Your task to perform on an android device: Open settings on Google Maps Image 0: 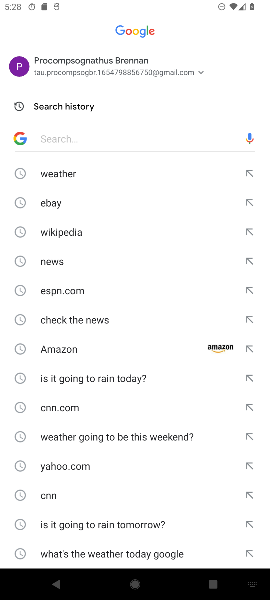
Step 0: press back button
Your task to perform on an android device: Open settings on Google Maps Image 1: 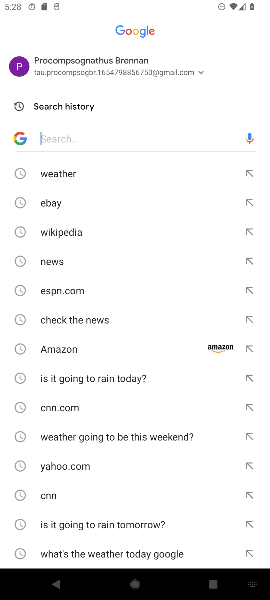
Step 1: press back button
Your task to perform on an android device: Open settings on Google Maps Image 2: 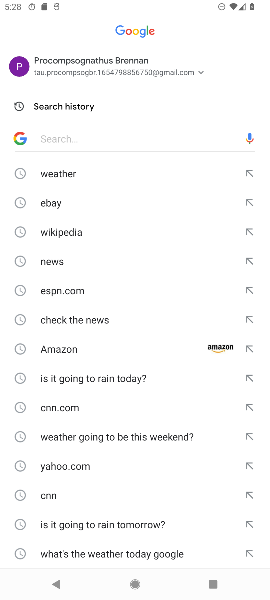
Step 2: press back button
Your task to perform on an android device: Open settings on Google Maps Image 3: 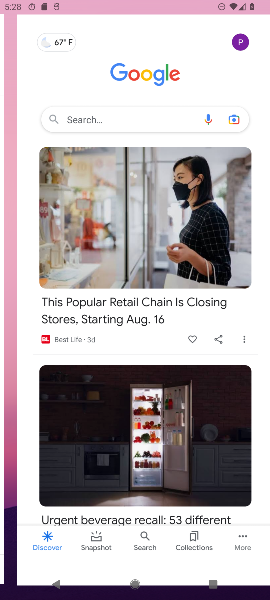
Step 3: press back button
Your task to perform on an android device: Open settings on Google Maps Image 4: 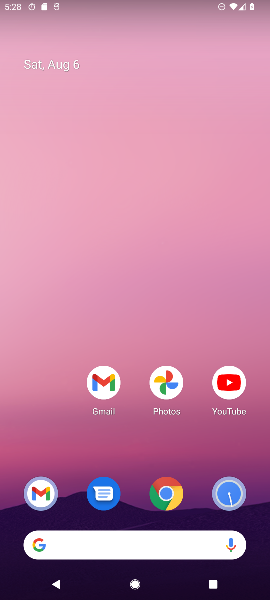
Step 4: drag from (155, 383) to (113, 90)
Your task to perform on an android device: Open settings on Google Maps Image 5: 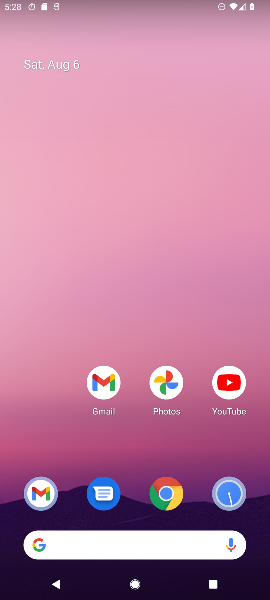
Step 5: drag from (209, 405) to (170, 139)
Your task to perform on an android device: Open settings on Google Maps Image 6: 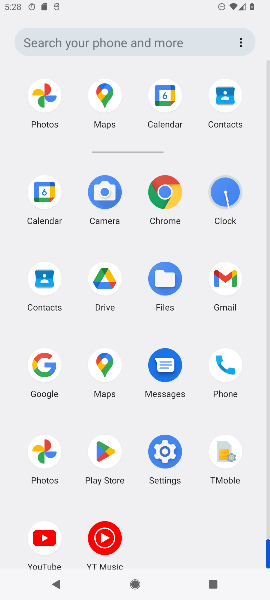
Step 6: drag from (138, 475) to (115, 223)
Your task to perform on an android device: Open settings on Google Maps Image 7: 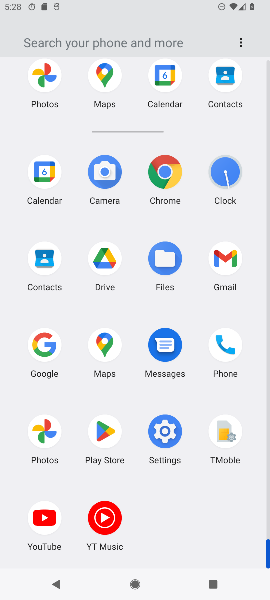
Step 7: click (102, 338)
Your task to perform on an android device: Open settings on Google Maps Image 8: 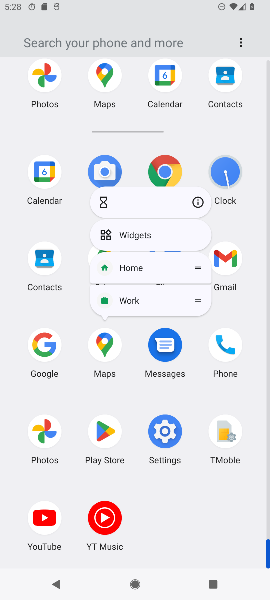
Step 8: click (108, 342)
Your task to perform on an android device: Open settings on Google Maps Image 9: 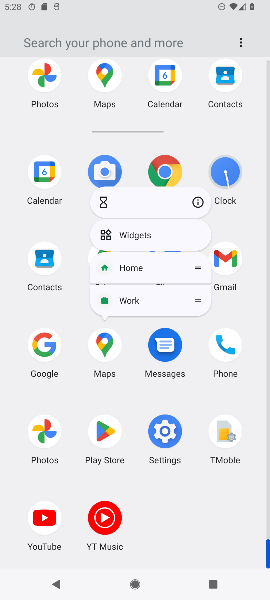
Step 9: click (108, 342)
Your task to perform on an android device: Open settings on Google Maps Image 10: 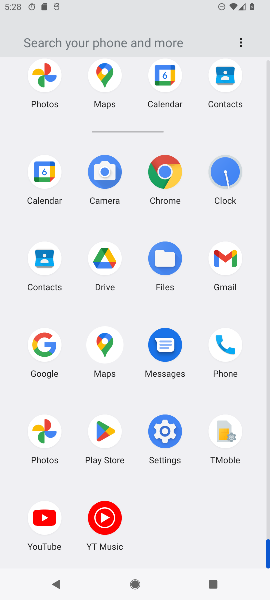
Step 10: click (108, 342)
Your task to perform on an android device: Open settings on Google Maps Image 11: 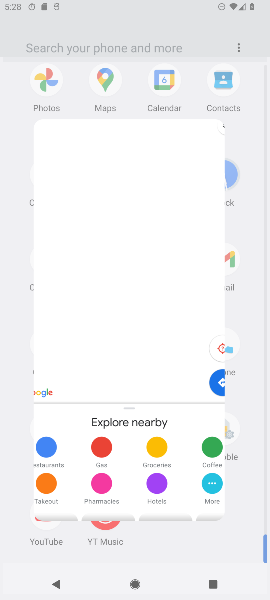
Step 11: click (108, 342)
Your task to perform on an android device: Open settings on Google Maps Image 12: 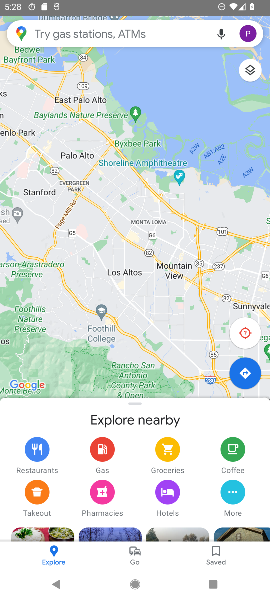
Step 12: click (247, 41)
Your task to perform on an android device: Open settings on Google Maps Image 13: 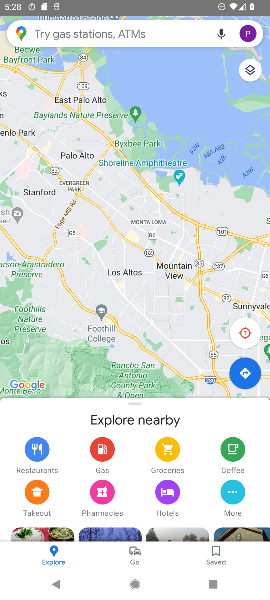
Step 13: click (247, 41)
Your task to perform on an android device: Open settings on Google Maps Image 14: 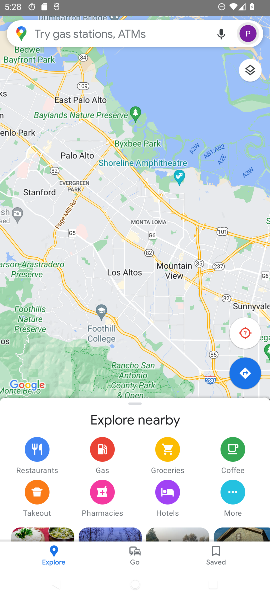
Step 14: click (246, 41)
Your task to perform on an android device: Open settings on Google Maps Image 15: 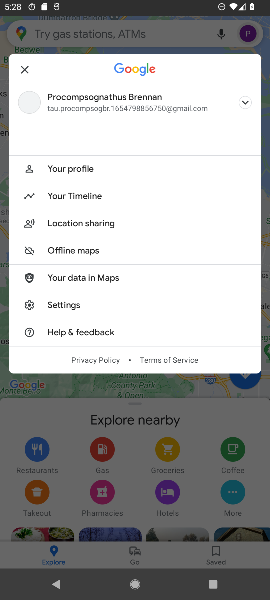
Step 15: click (246, 41)
Your task to perform on an android device: Open settings on Google Maps Image 16: 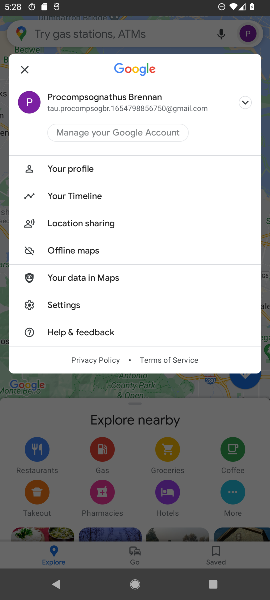
Step 16: click (246, 41)
Your task to perform on an android device: Open settings on Google Maps Image 17: 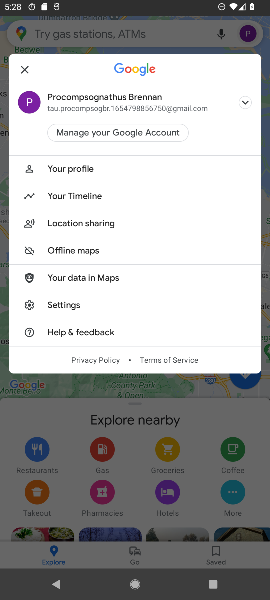
Step 17: click (246, 41)
Your task to perform on an android device: Open settings on Google Maps Image 18: 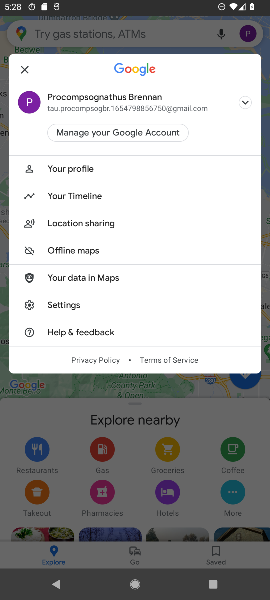
Step 18: click (247, 32)
Your task to perform on an android device: Open settings on Google Maps Image 19: 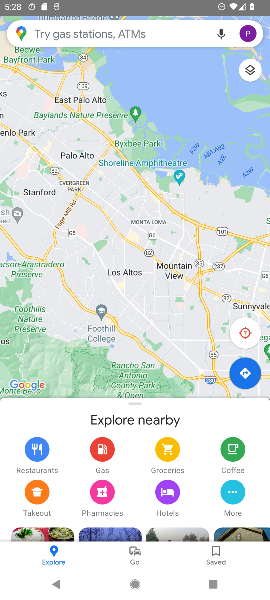
Step 19: click (247, 33)
Your task to perform on an android device: Open settings on Google Maps Image 20: 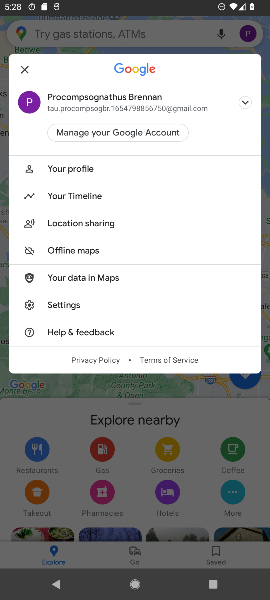
Step 20: click (67, 301)
Your task to perform on an android device: Open settings on Google Maps Image 21: 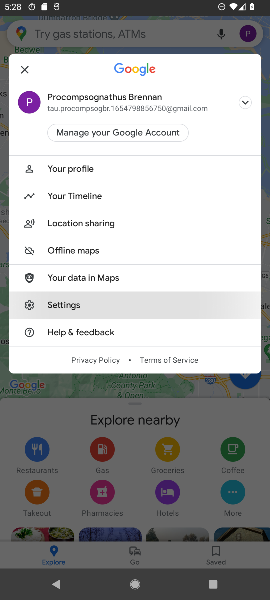
Step 21: click (67, 301)
Your task to perform on an android device: Open settings on Google Maps Image 22: 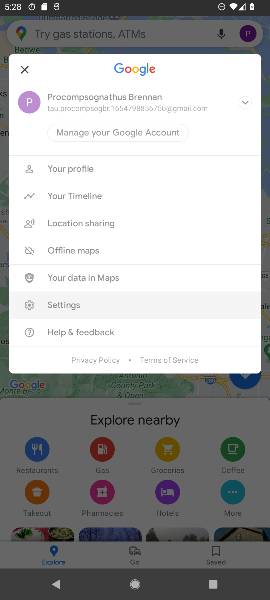
Step 22: click (67, 301)
Your task to perform on an android device: Open settings on Google Maps Image 23: 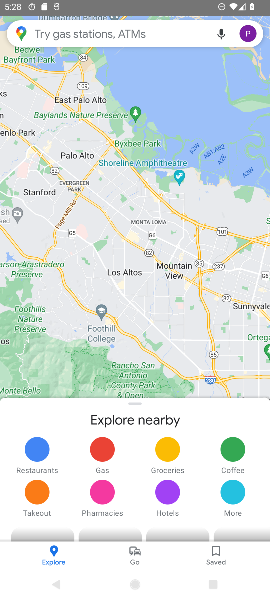
Step 23: click (67, 301)
Your task to perform on an android device: Open settings on Google Maps Image 24: 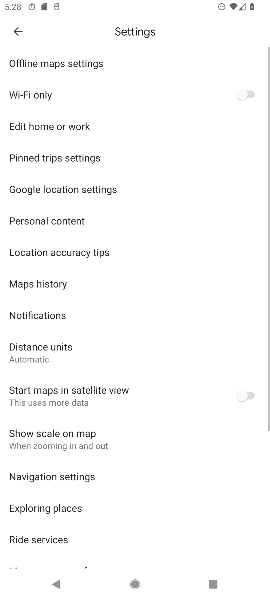
Step 24: task complete